Your task to perform on an android device: When is my next meeting? Image 0: 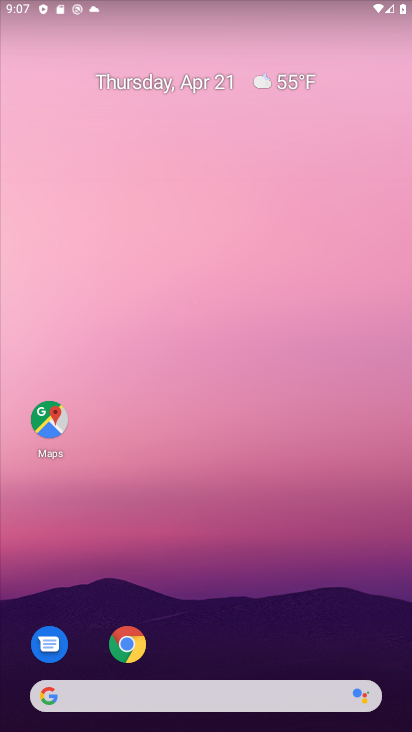
Step 0: drag from (291, 604) to (234, 146)
Your task to perform on an android device: When is my next meeting? Image 1: 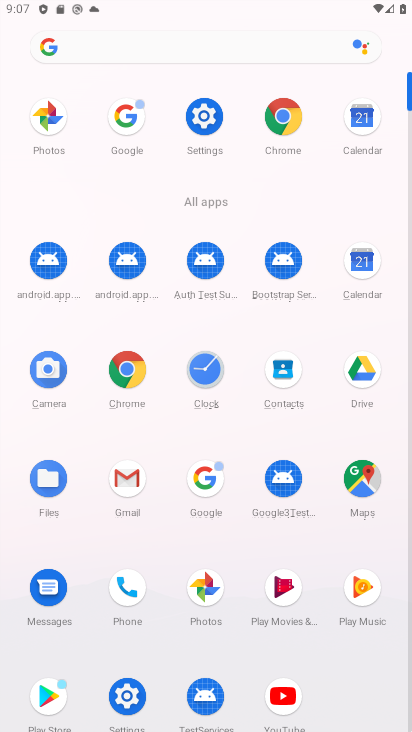
Step 1: click (354, 262)
Your task to perform on an android device: When is my next meeting? Image 2: 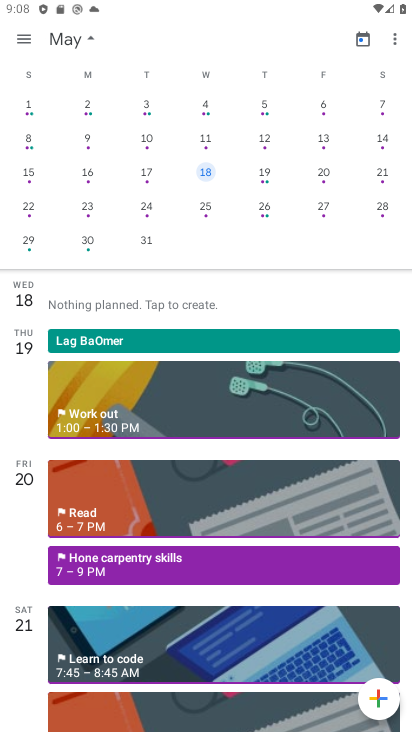
Step 2: drag from (32, 156) to (393, 167)
Your task to perform on an android device: When is my next meeting? Image 3: 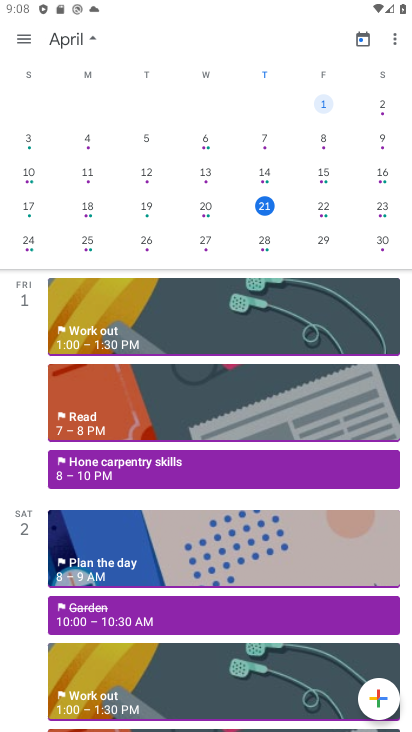
Step 3: click (319, 211)
Your task to perform on an android device: When is my next meeting? Image 4: 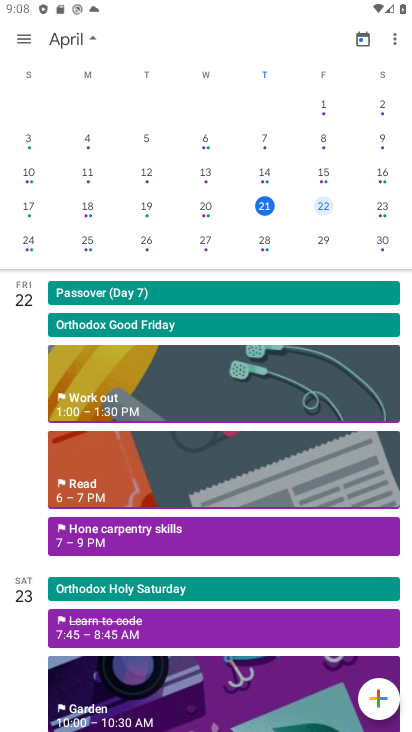
Step 4: task complete